Your task to perform on an android device: Open Chrome and go to settings Image 0: 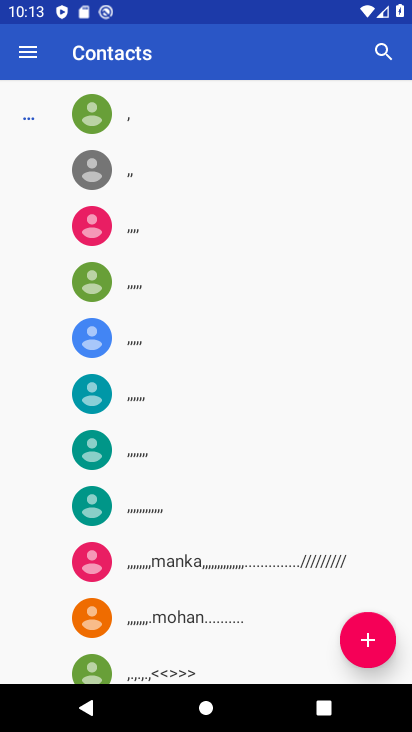
Step 0: press home button
Your task to perform on an android device: Open Chrome and go to settings Image 1: 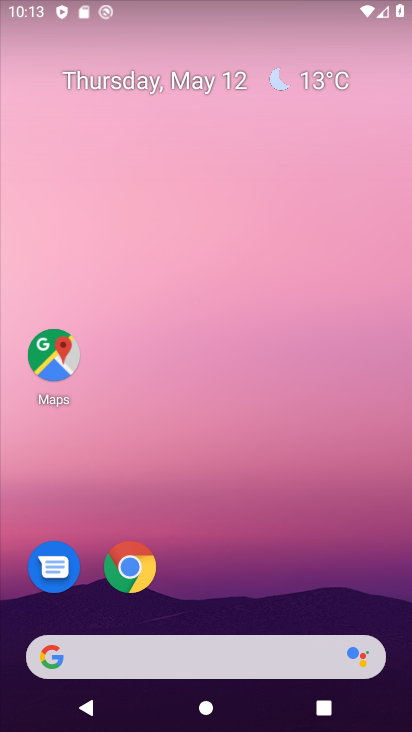
Step 1: drag from (265, 595) to (302, 163)
Your task to perform on an android device: Open Chrome and go to settings Image 2: 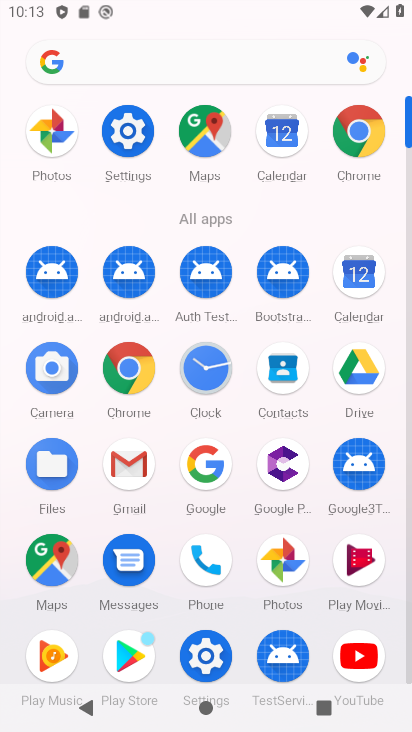
Step 2: click (120, 371)
Your task to perform on an android device: Open Chrome and go to settings Image 3: 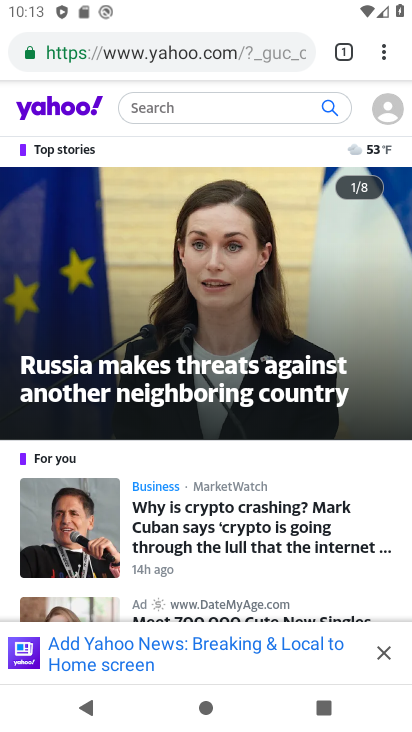
Step 3: task complete